Your task to perform on an android device: open a bookmark in the chrome app Image 0: 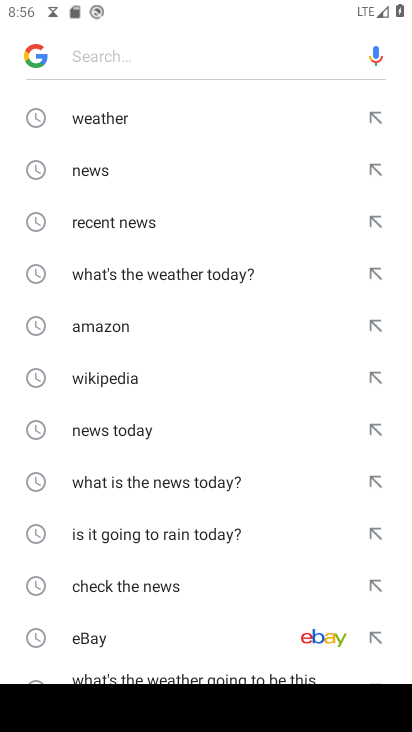
Step 0: press home button
Your task to perform on an android device: open a bookmark in the chrome app Image 1: 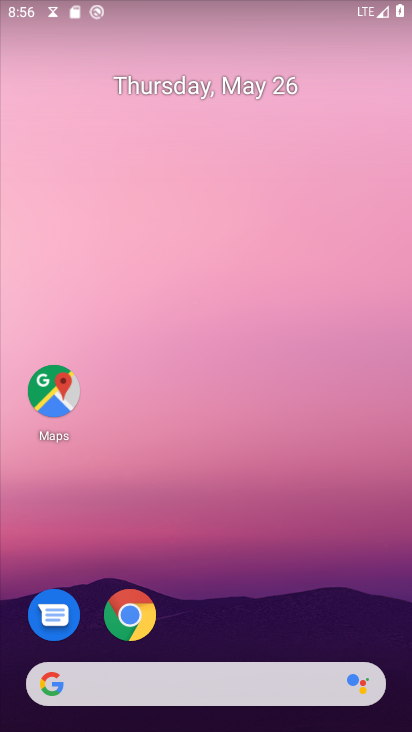
Step 1: click (126, 609)
Your task to perform on an android device: open a bookmark in the chrome app Image 2: 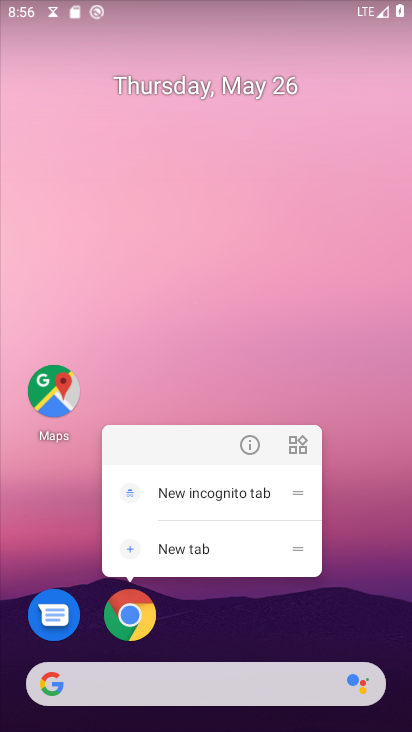
Step 2: click (124, 610)
Your task to perform on an android device: open a bookmark in the chrome app Image 3: 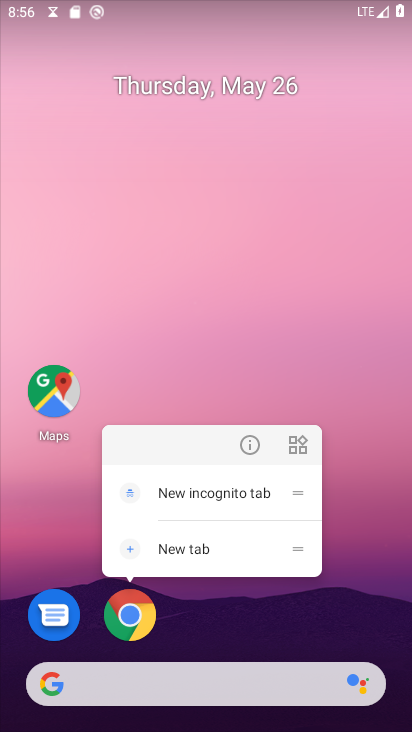
Step 3: click (126, 607)
Your task to perform on an android device: open a bookmark in the chrome app Image 4: 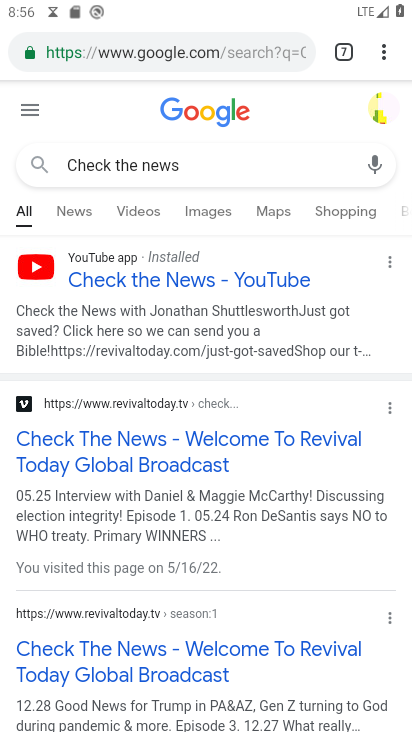
Step 4: click (384, 49)
Your task to perform on an android device: open a bookmark in the chrome app Image 5: 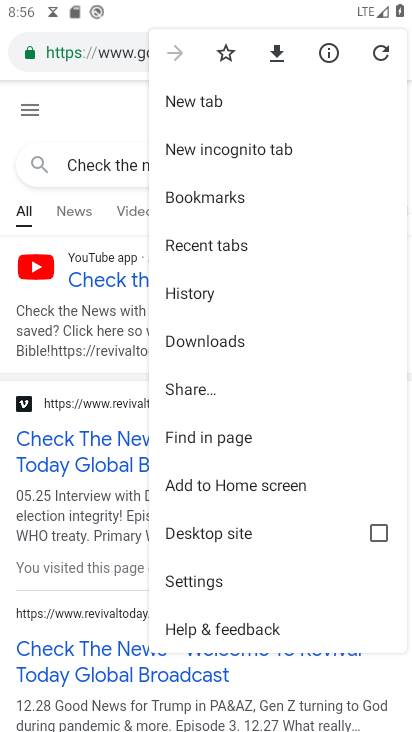
Step 5: click (238, 189)
Your task to perform on an android device: open a bookmark in the chrome app Image 6: 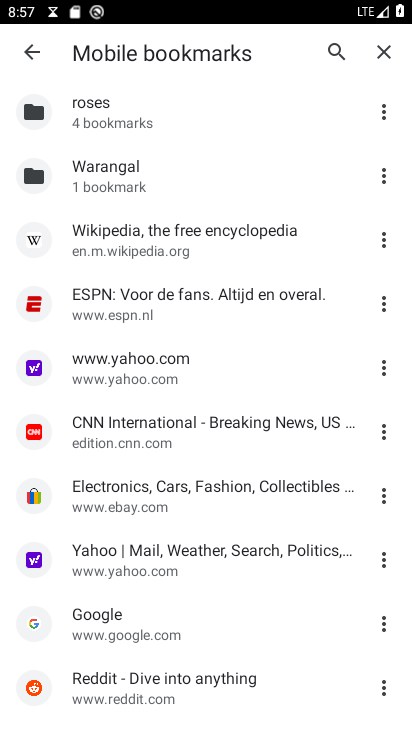
Step 6: task complete